Your task to perform on an android device: uninstall "Facebook Lite" Image 0: 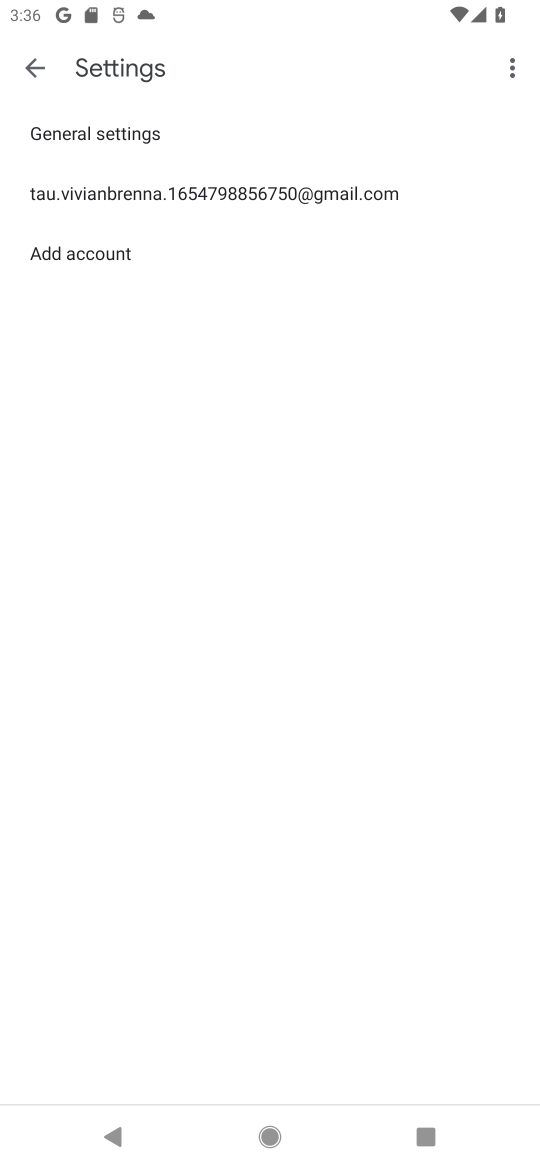
Step 0: press home button
Your task to perform on an android device: uninstall "Facebook Lite" Image 1: 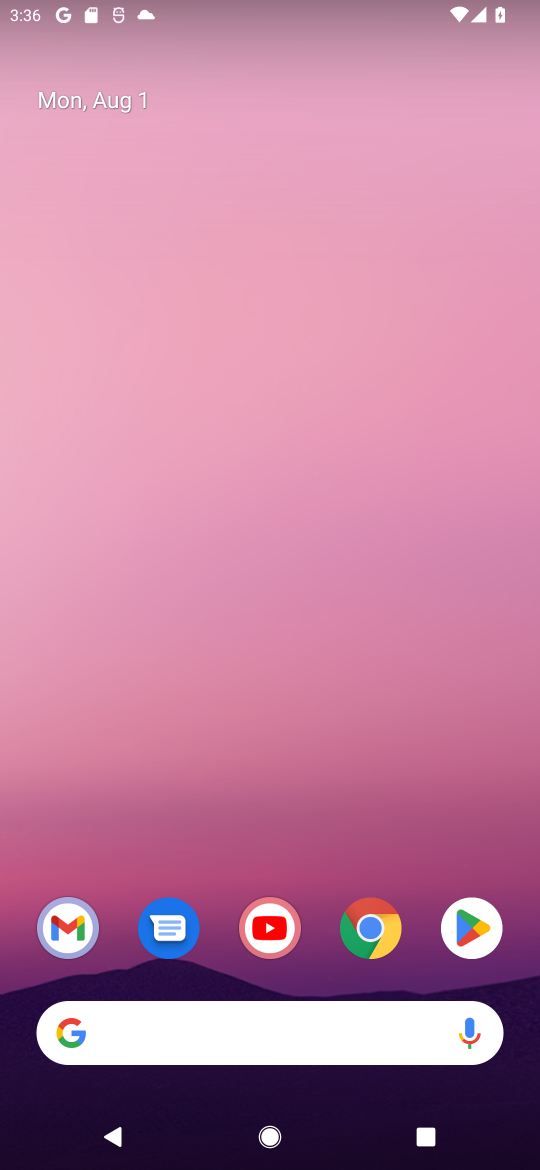
Step 1: click (491, 914)
Your task to perform on an android device: uninstall "Facebook Lite" Image 2: 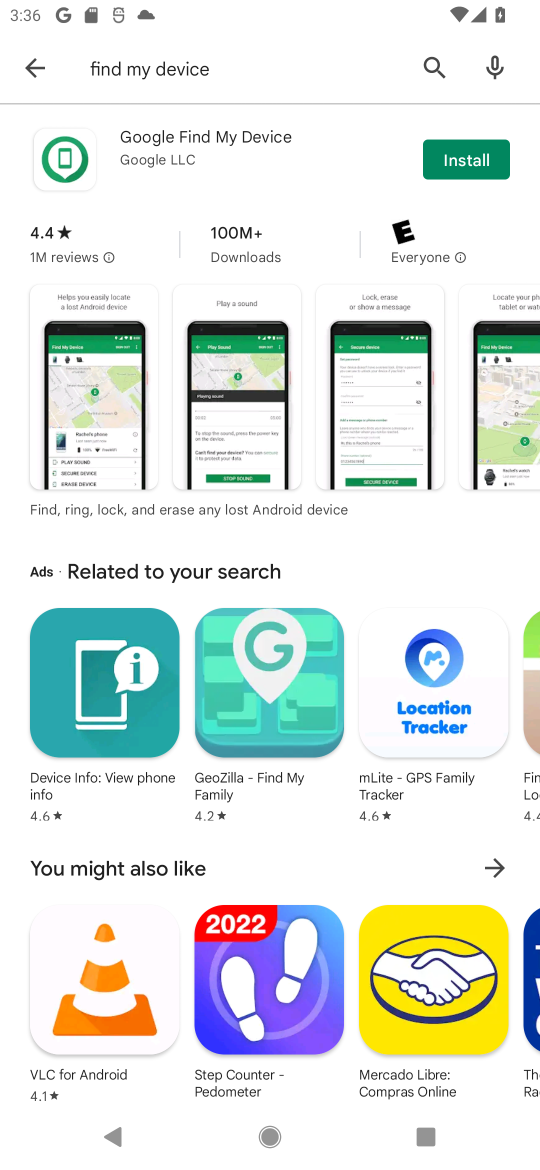
Step 2: click (418, 55)
Your task to perform on an android device: uninstall "Facebook Lite" Image 3: 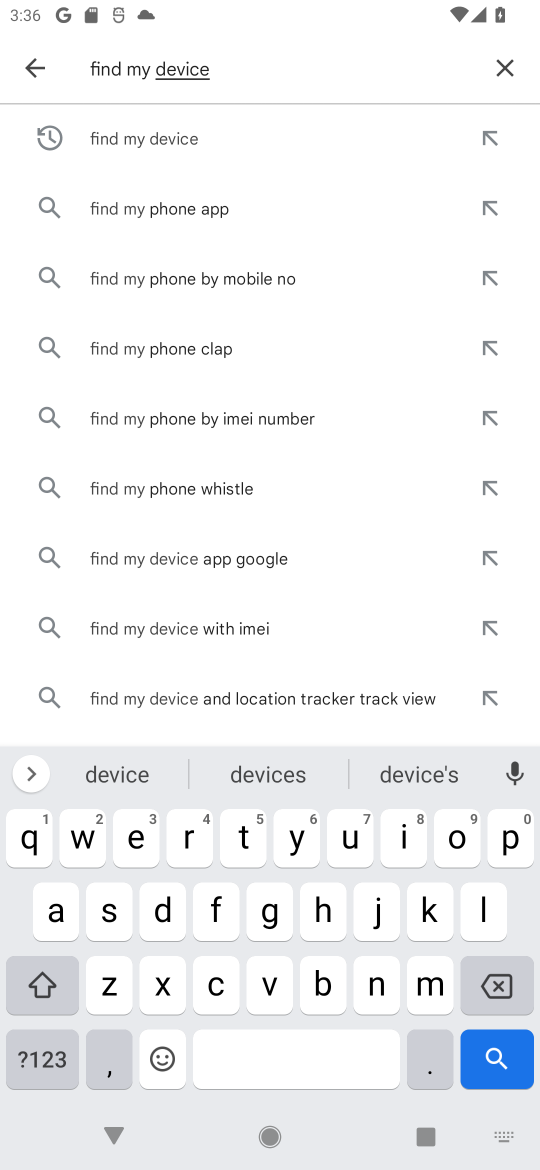
Step 3: click (495, 64)
Your task to perform on an android device: uninstall "Facebook Lite" Image 4: 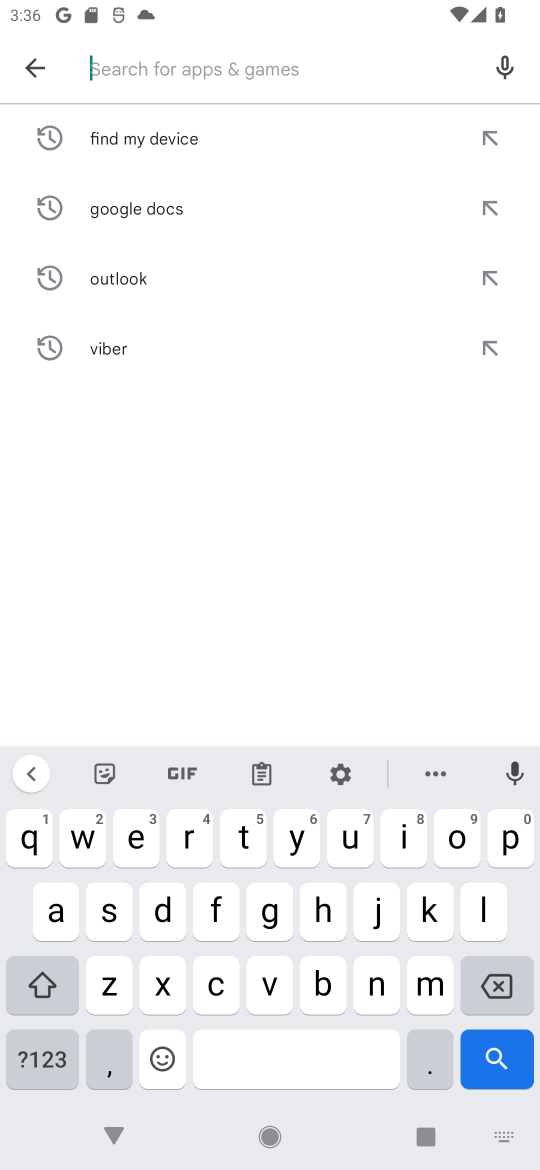
Step 4: click (189, 910)
Your task to perform on an android device: uninstall "Facebook Lite" Image 5: 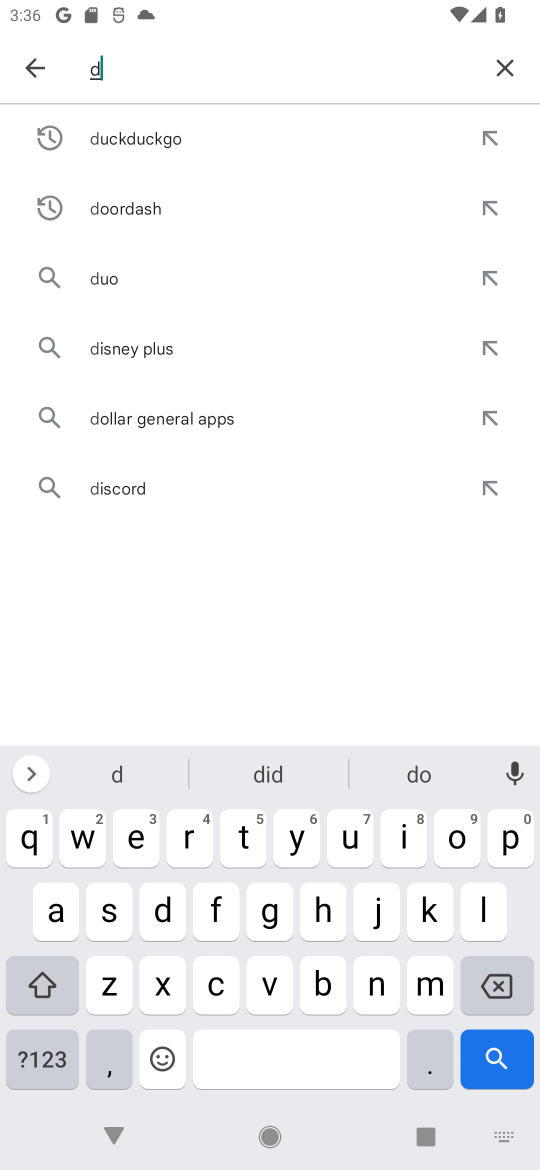
Step 5: click (44, 907)
Your task to perform on an android device: uninstall "Facebook Lite" Image 6: 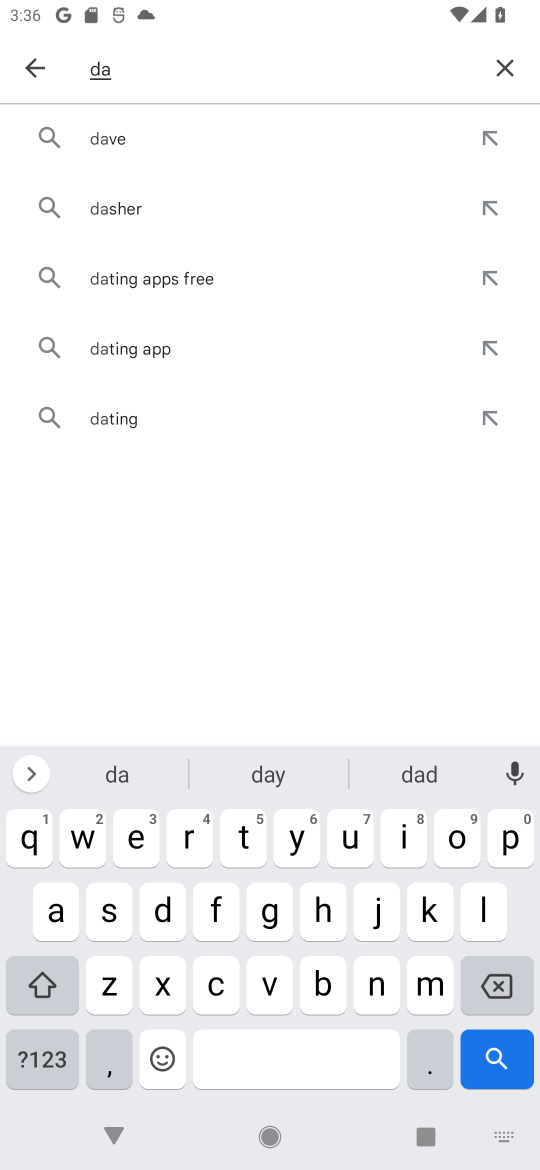
Step 6: click (486, 969)
Your task to perform on an android device: uninstall "Facebook Lite" Image 7: 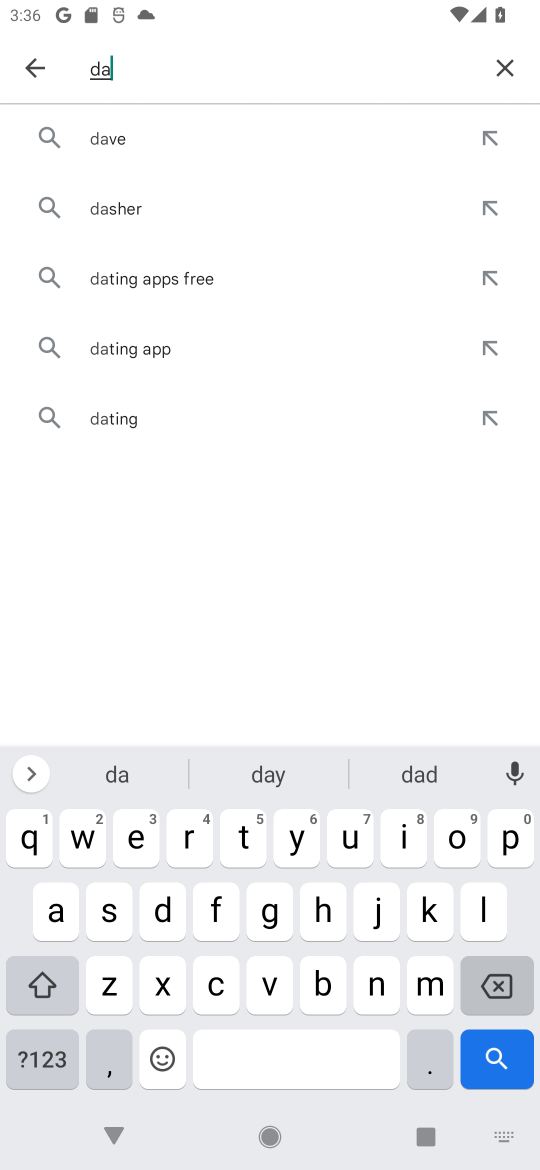
Step 7: click (484, 969)
Your task to perform on an android device: uninstall "Facebook Lite" Image 8: 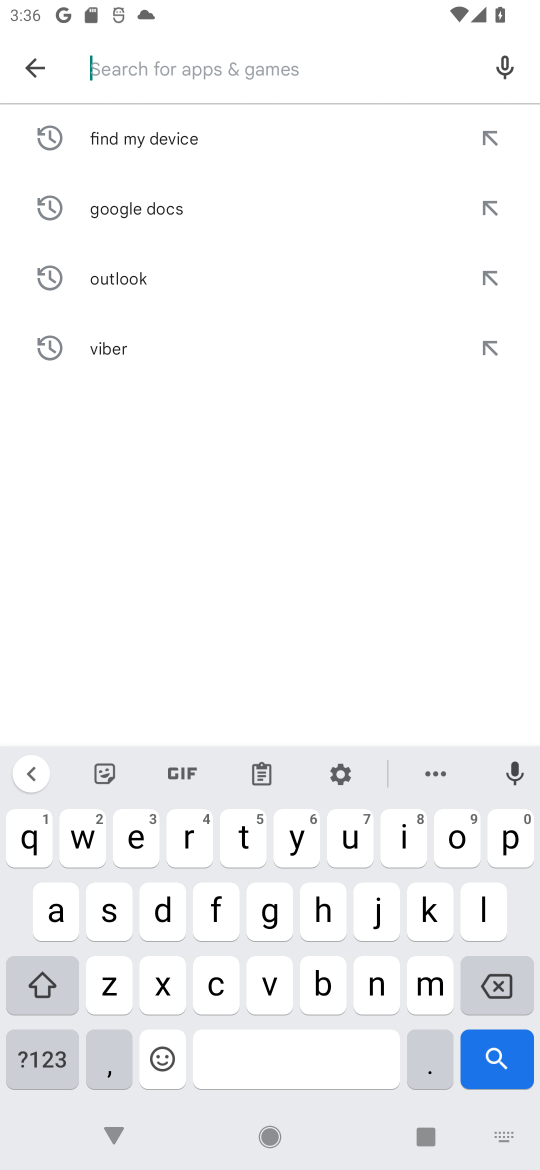
Step 8: click (484, 969)
Your task to perform on an android device: uninstall "Facebook Lite" Image 9: 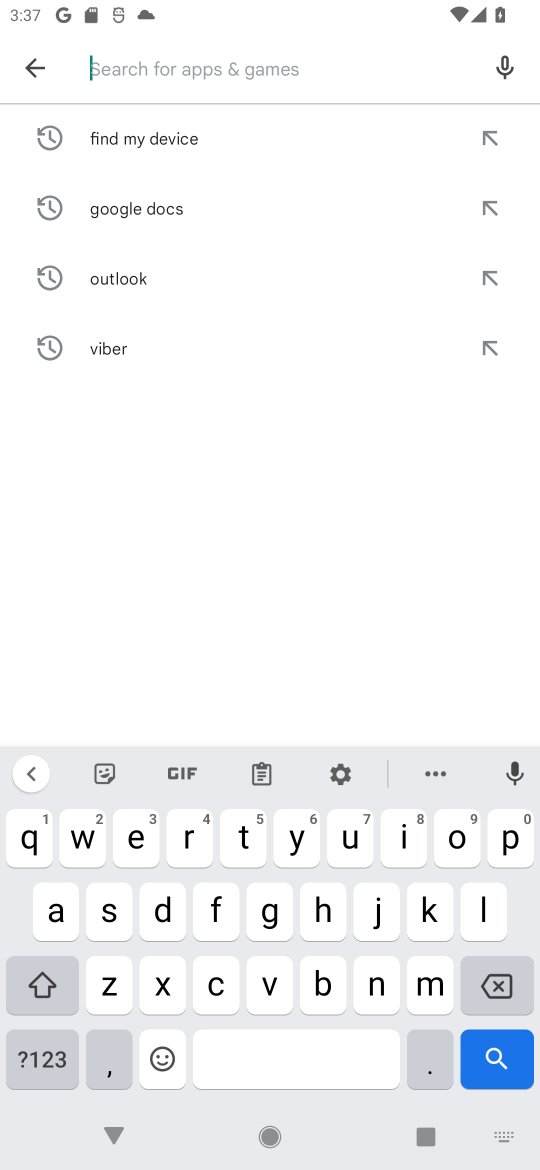
Step 9: type "facebook lite"
Your task to perform on an android device: uninstall "Facebook Lite" Image 10: 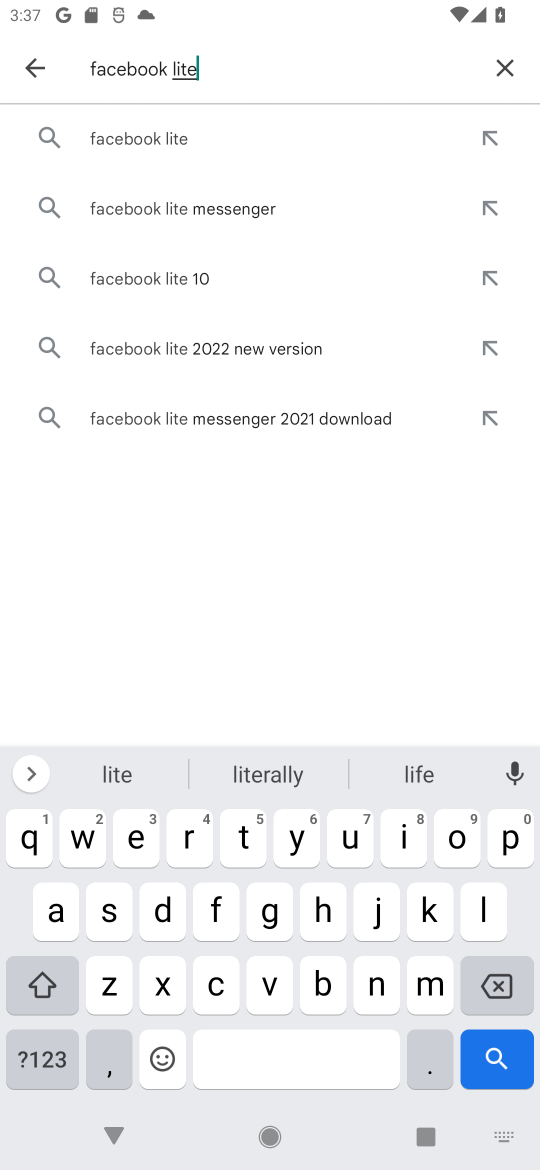
Step 10: click (184, 150)
Your task to perform on an android device: uninstall "Facebook Lite" Image 11: 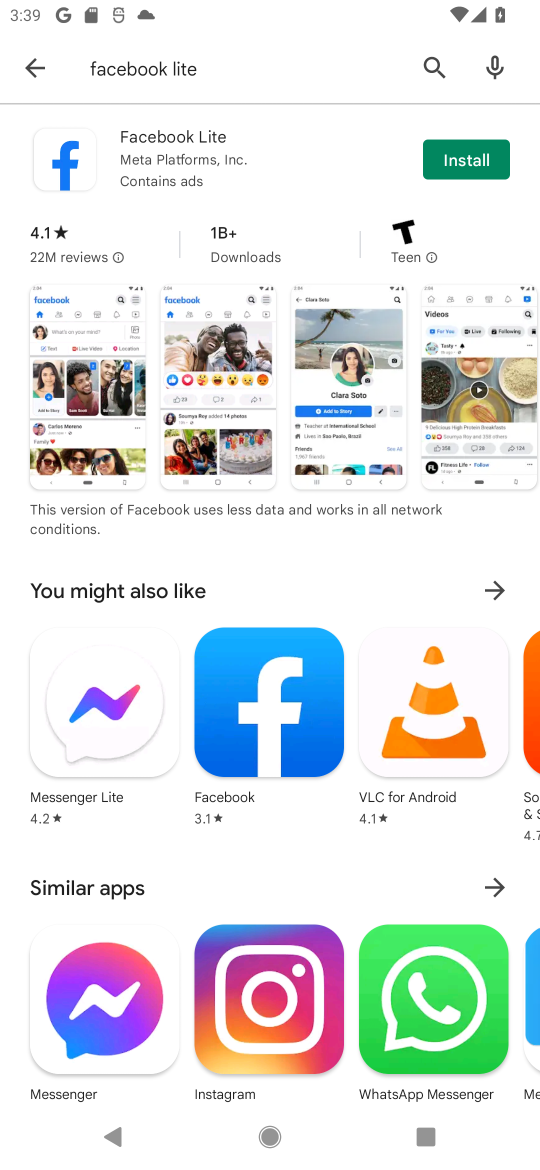
Step 11: task complete